Your task to perform on an android device: Find coffee shops on Maps Image 0: 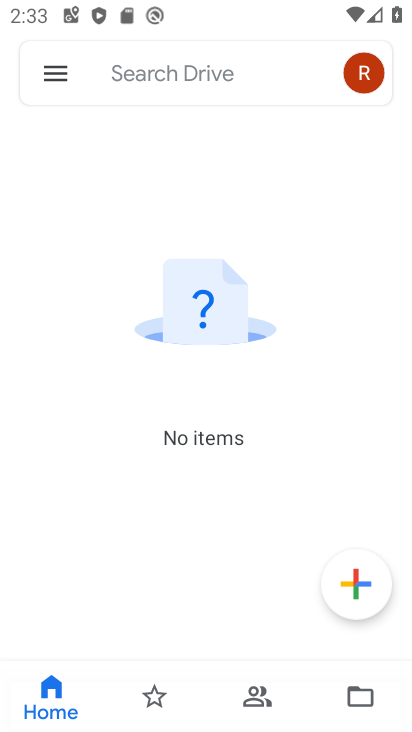
Step 0: press home button
Your task to perform on an android device: Find coffee shops on Maps Image 1: 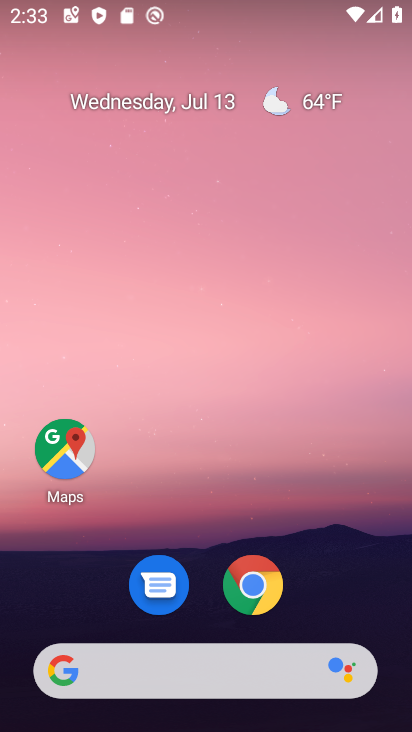
Step 1: click (79, 454)
Your task to perform on an android device: Find coffee shops on Maps Image 2: 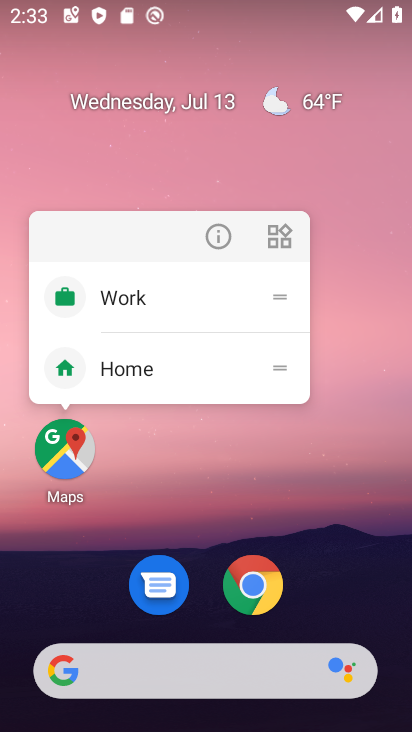
Step 2: click (69, 450)
Your task to perform on an android device: Find coffee shops on Maps Image 3: 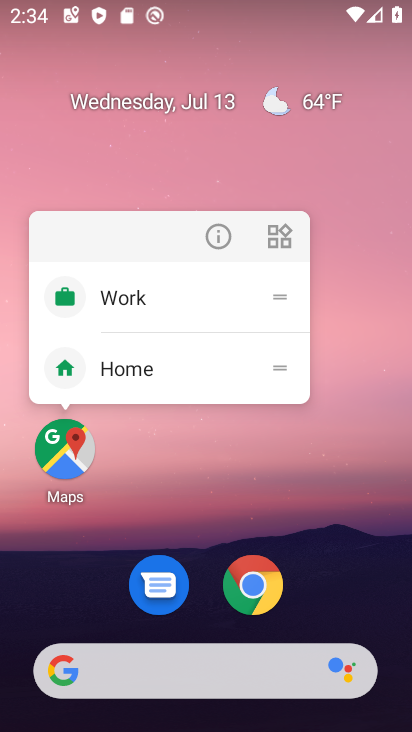
Step 3: click (63, 451)
Your task to perform on an android device: Find coffee shops on Maps Image 4: 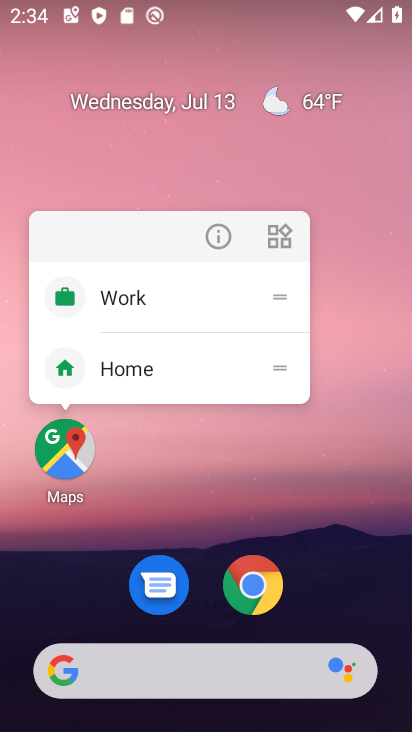
Step 4: click (63, 450)
Your task to perform on an android device: Find coffee shops on Maps Image 5: 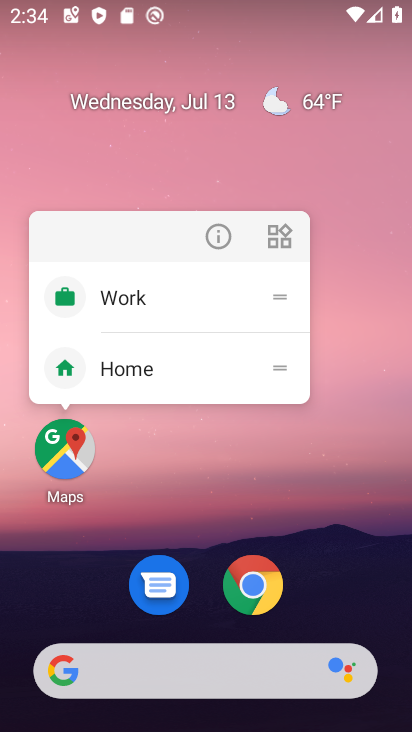
Step 5: click (63, 452)
Your task to perform on an android device: Find coffee shops on Maps Image 6: 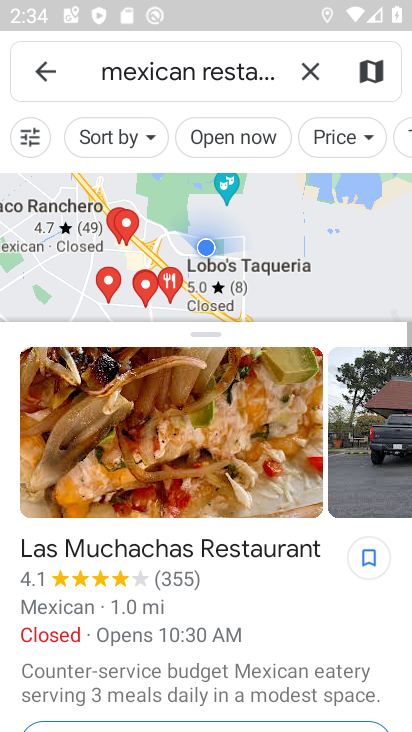
Step 6: click (307, 61)
Your task to perform on an android device: Find coffee shops on Maps Image 7: 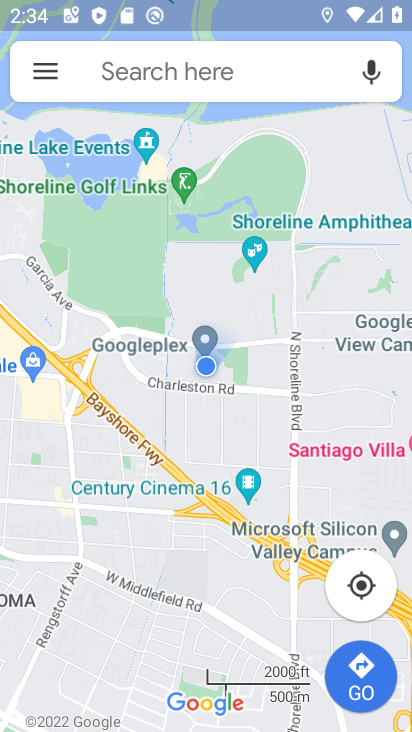
Step 7: click (199, 64)
Your task to perform on an android device: Find coffee shops on Maps Image 8: 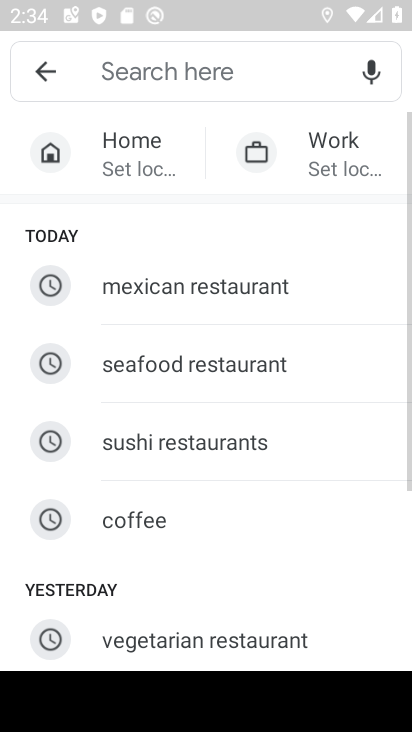
Step 8: click (131, 511)
Your task to perform on an android device: Find coffee shops on Maps Image 9: 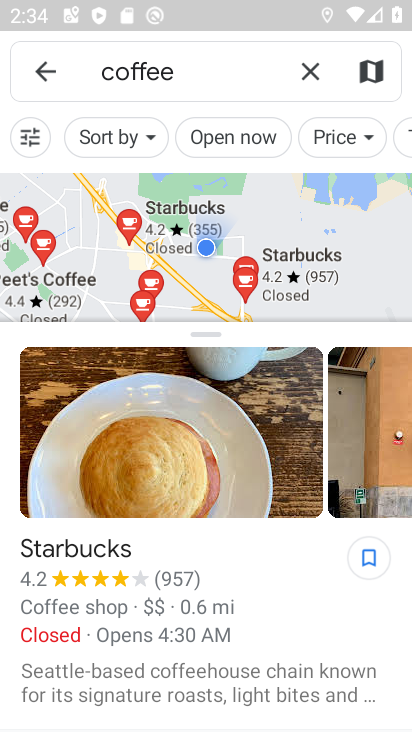
Step 9: task complete